Your task to perform on an android device: turn off picture-in-picture Image 0: 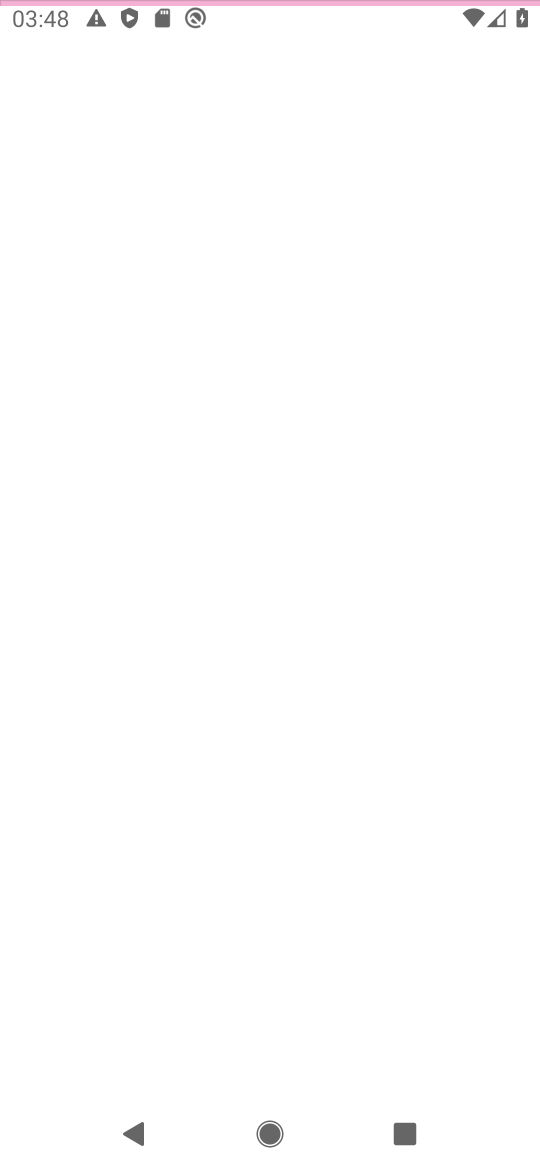
Step 0: press home button
Your task to perform on an android device: turn off picture-in-picture Image 1: 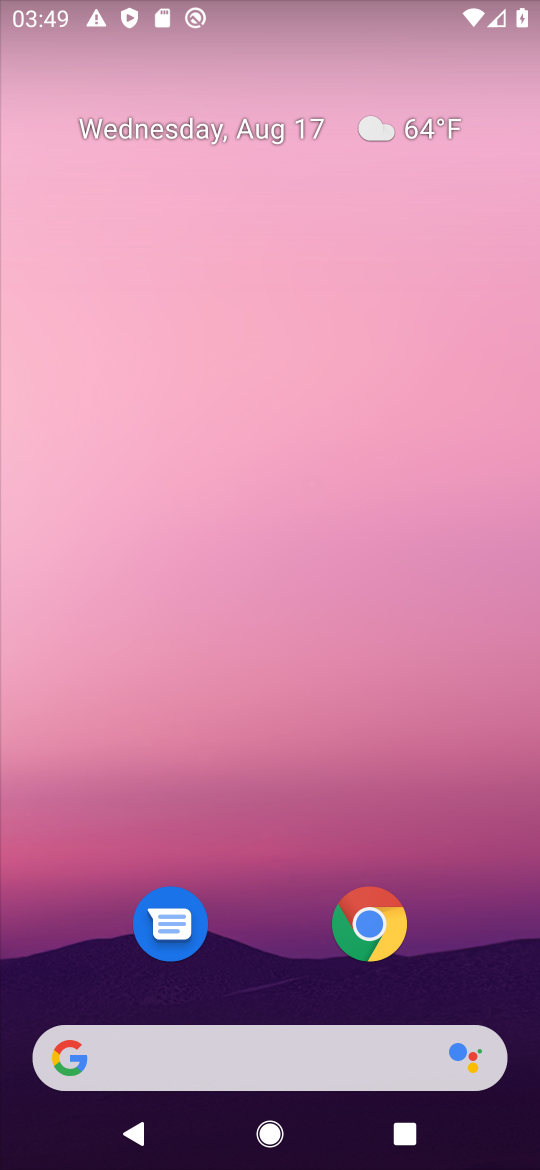
Step 1: drag from (273, 978) to (269, 0)
Your task to perform on an android device: turn off picture-in-picture Image 2: 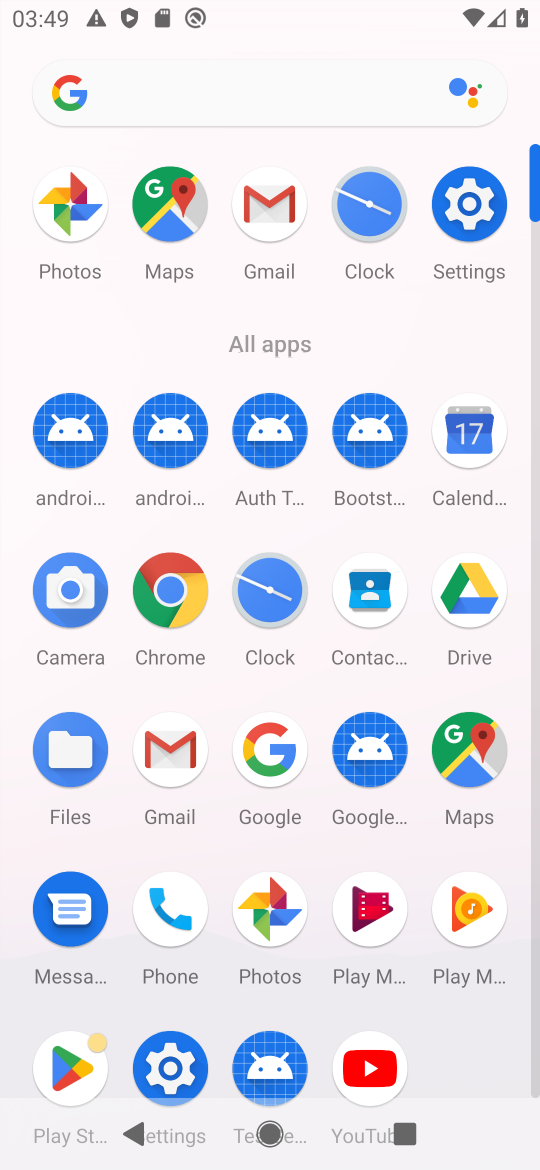
Step 2: click (161, 1043)
Your task to perform on an android device: turn off picture-in-picture Image 3: 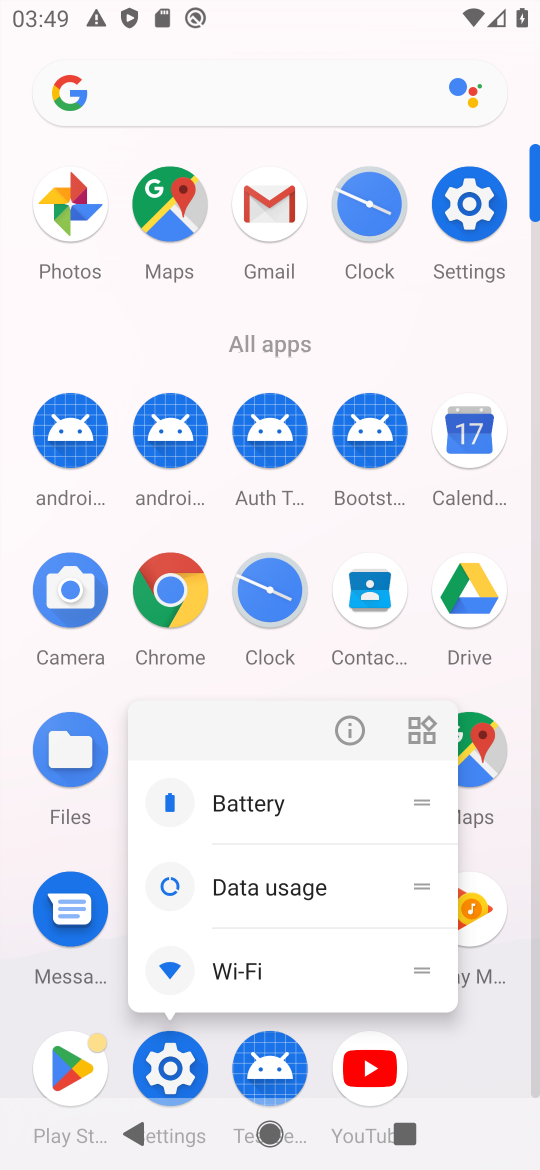
Step 3: click (185, 1088)
Your task to perform on an android device: turn off picture-in-picture Image 4: 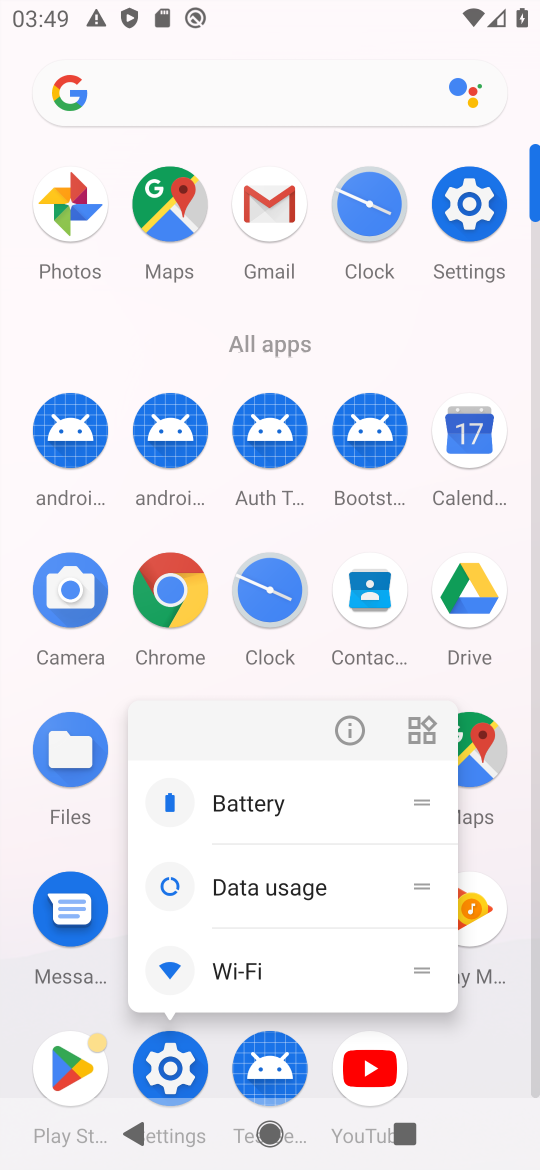
Step 4: click (183, 1070)
Your task to perform on an android device: turn off picture-in-picture Image 5: 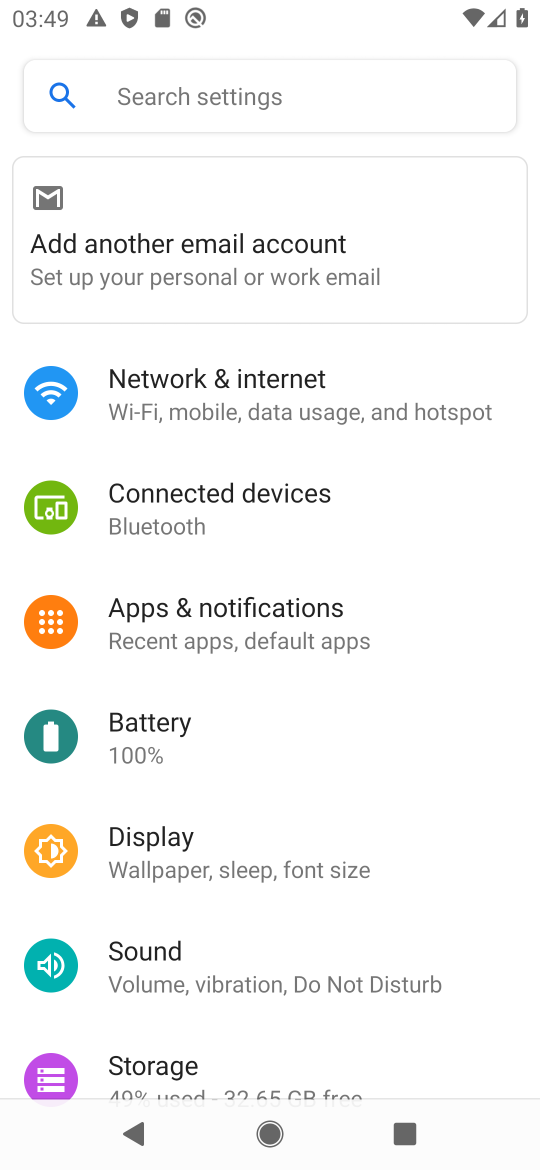
Step 5: drag from (244, 937) to (241, 541)
Your task to perform on an android device: turn off picture-in-picture Image 6: 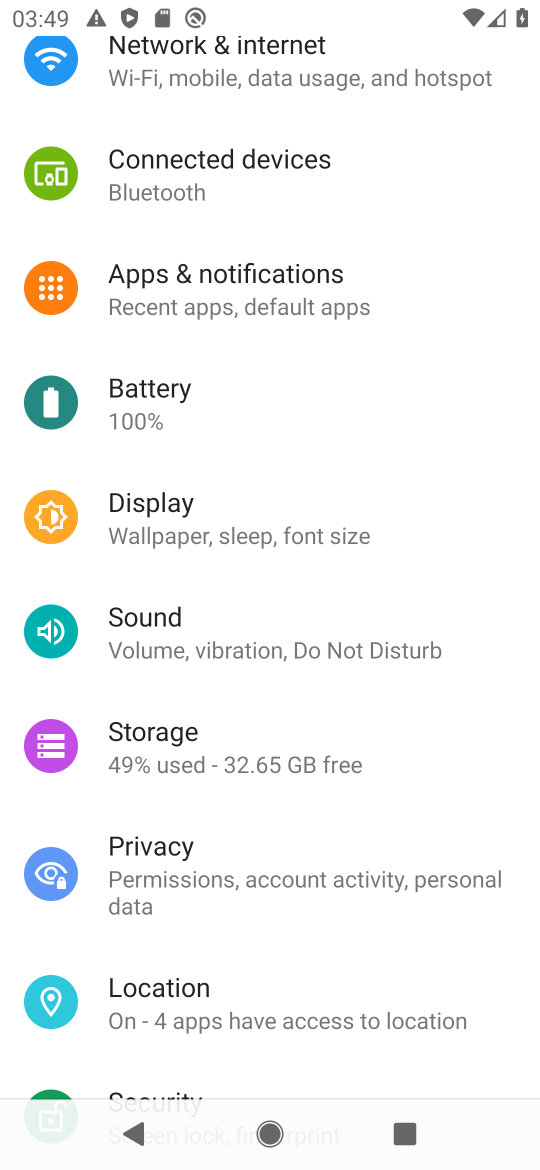
Step 6: click (248, 302)
Your task to perform on an android device: turn off picture-in-picture Image 7: 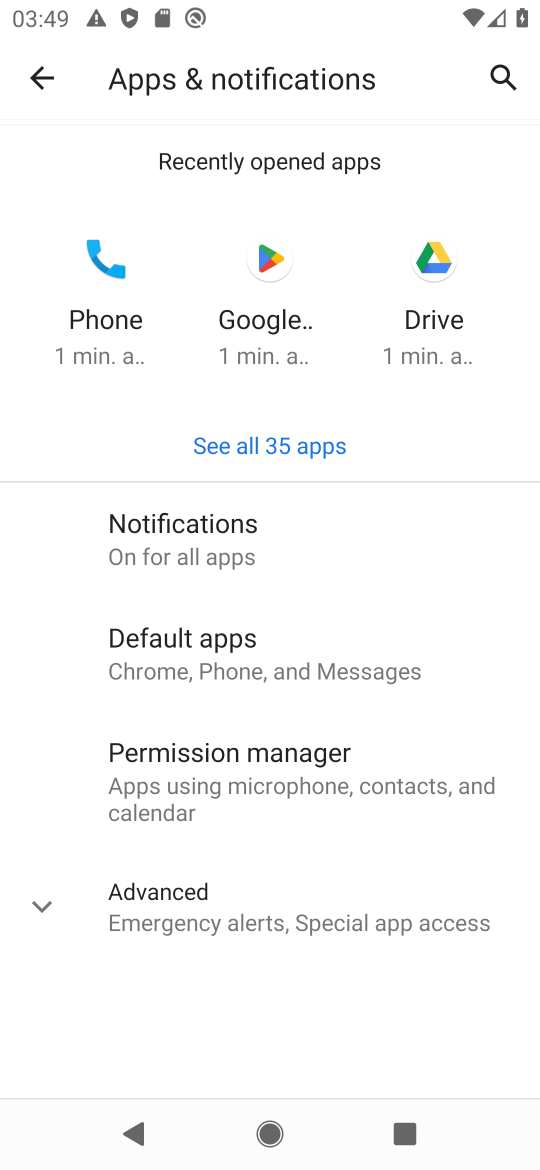
Step 7: click (229, 873)
Your task to perform on an android device: turn off picture-in-picture Image 8: 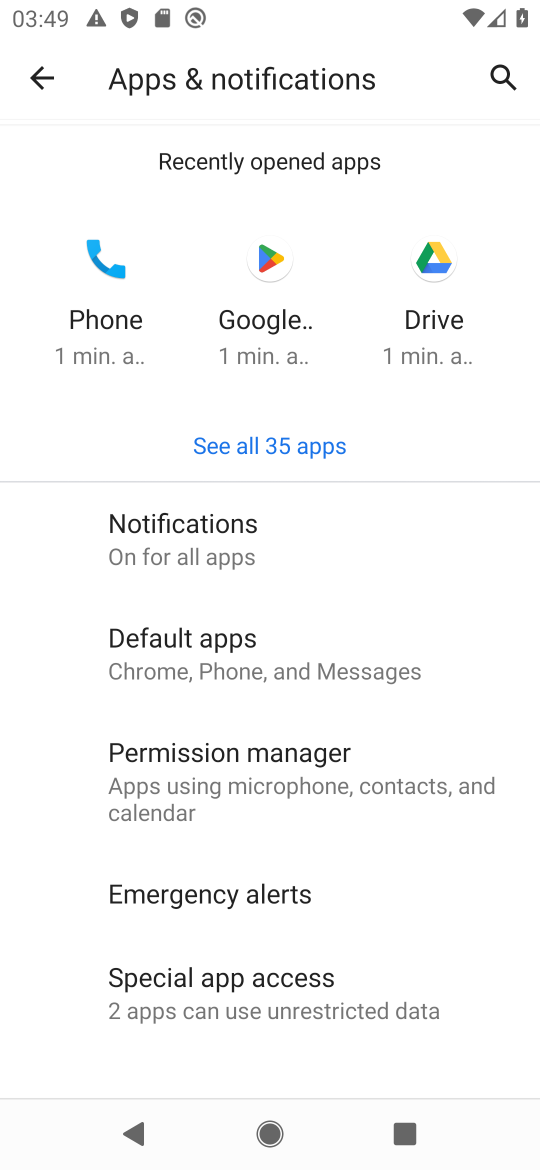
Step 8: click (208, 1003)
Your task to perform on an android device: turn off picture-in-picture Image 9: 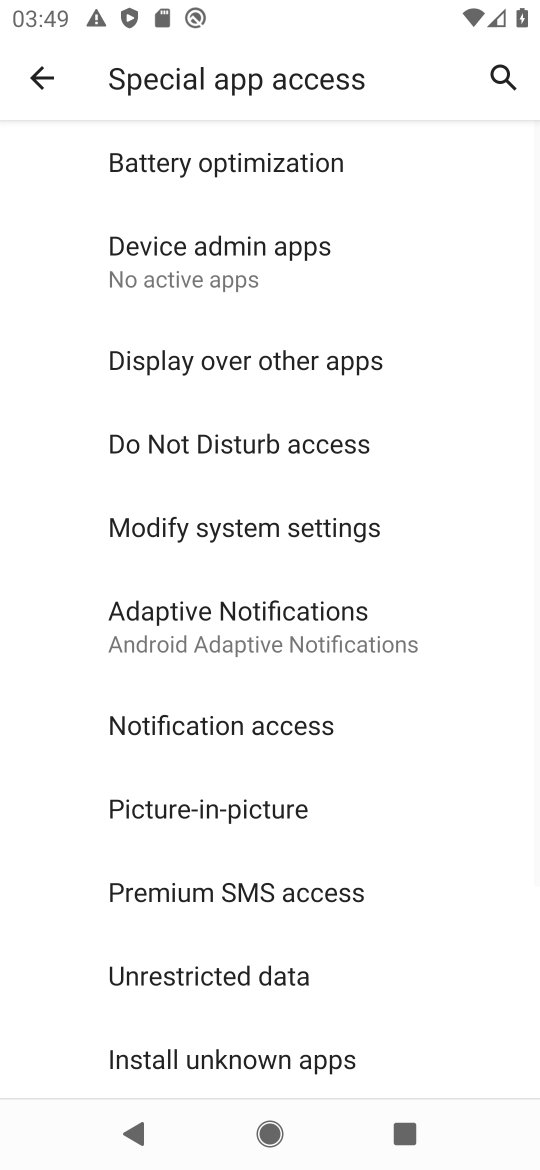
Step 9: click (177, 788)
Your task to perform on an android device: turn off picture-in-picture Image 10: 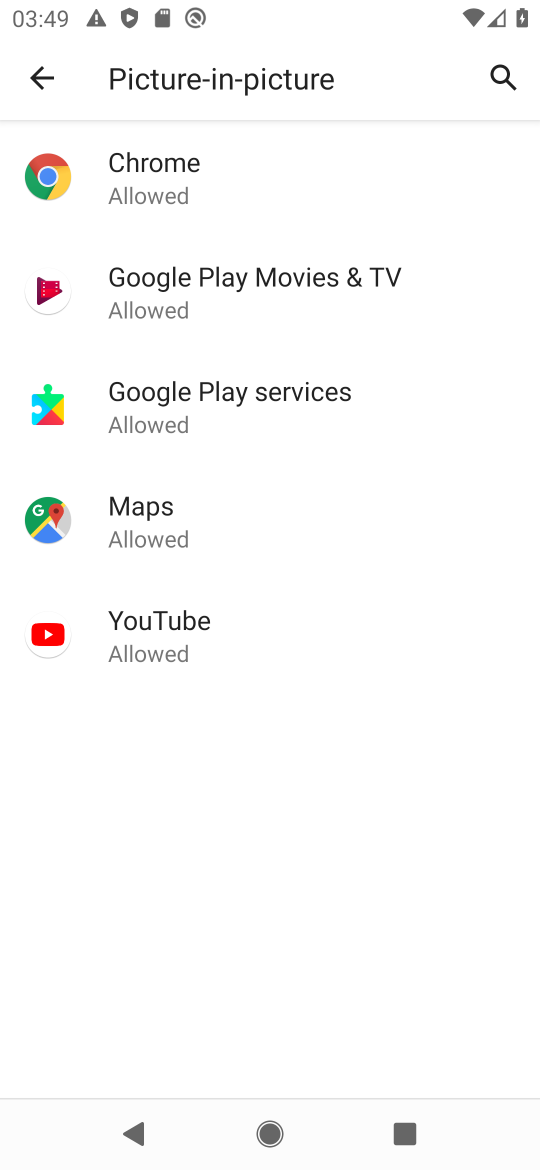
Step 10: task complete